Your task to perform on an android device: star an email in the gmail app Image 0: 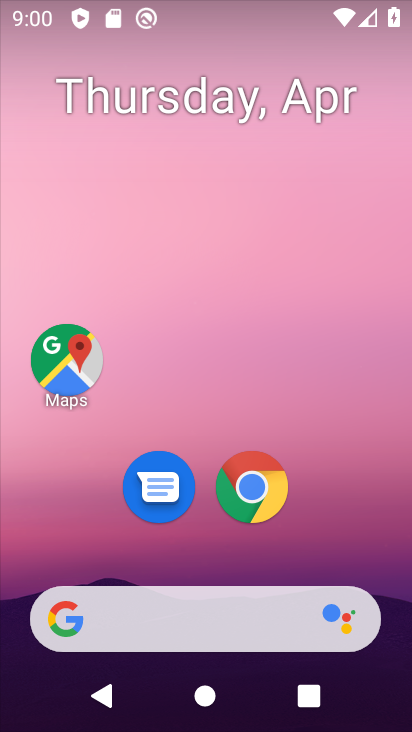
Step 0: drag from (347, 540) to (362, 200)
Your task to perform on an android device: star an email in the gmail app Image 1: 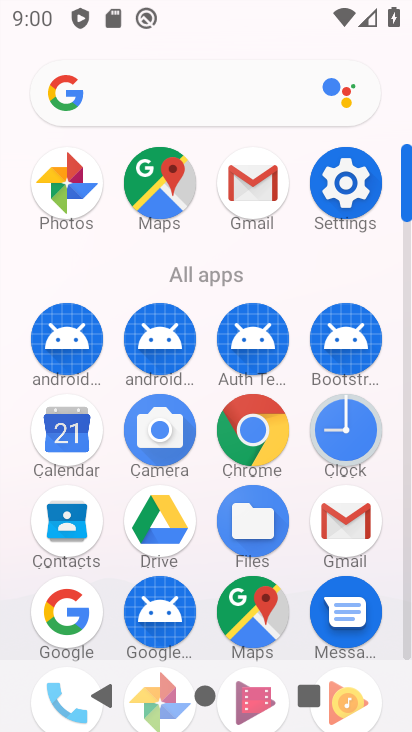
Step 1: click (355, 537)
Your task to perform on an android device: star an email in the gmail app Image 2: 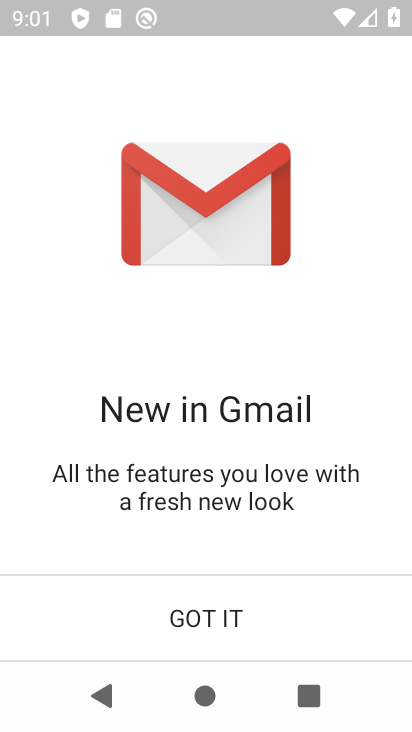
Step 2: click (208, 618)
Your task to perform on an android device: star an email in the gmail app Image 3: 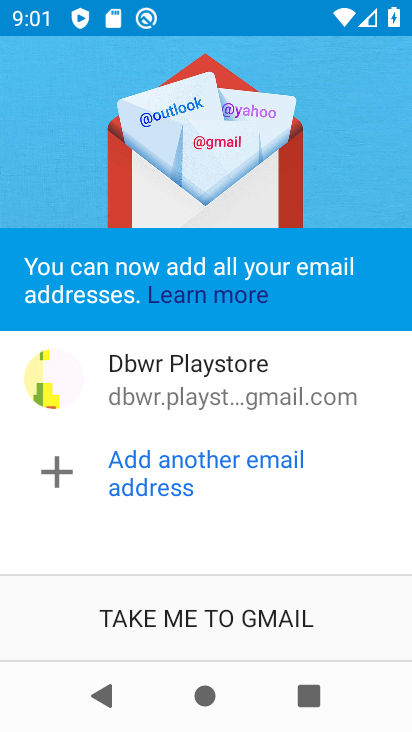
Step 3: click (249, 610)
Your task to perform on an android device: star an email in the gmail app Image 4: 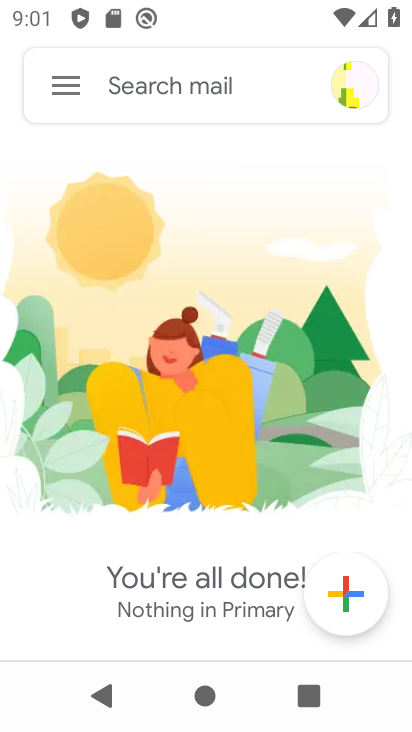
Step 4: click (70, 92)
Your task to perform on an android device: star an email in the gmail app Image 5: 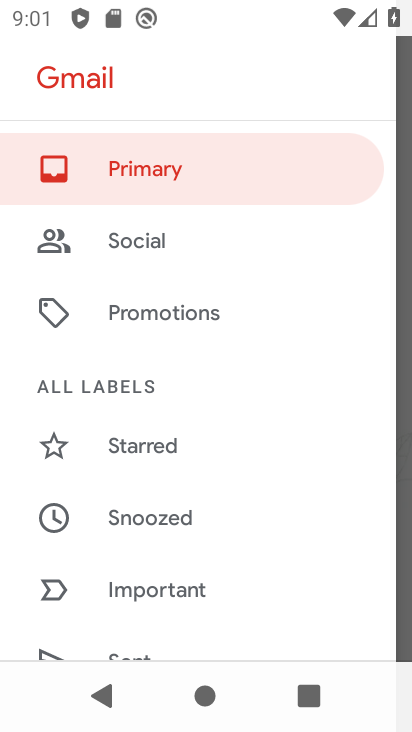
Step 5: drag from (246, 607) to (260, 229)
Your task to perform on an android device: star an email in the gmail app Image 6: 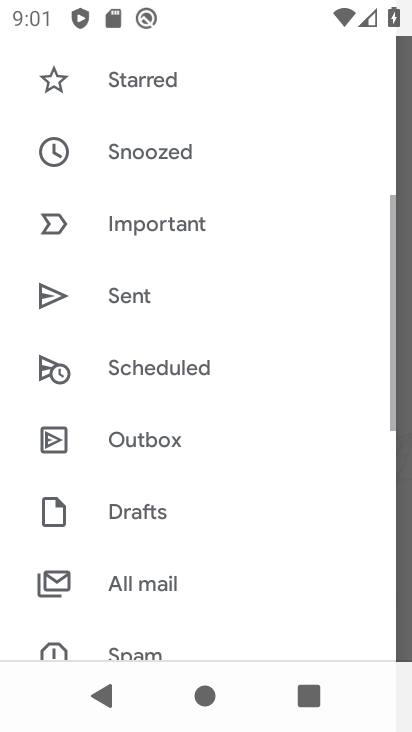
Step 6: drag from (273, 585) to (278, 252)
Your task to perform on an android device: star an email in the gmail app Image 7: 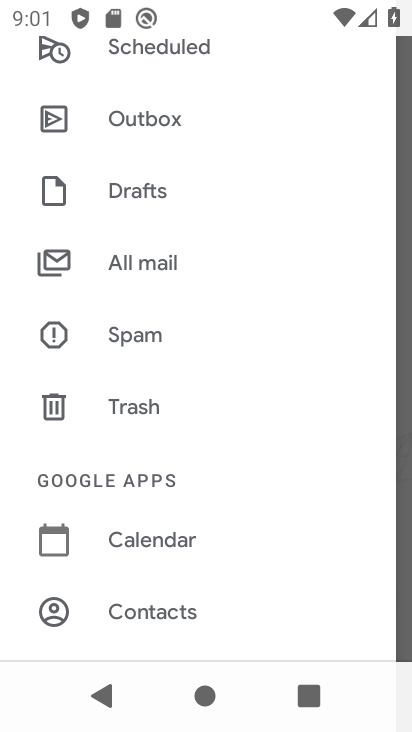
Step 7: click (150, 234)
Your task to perform on an android device: star an email in the gmail app Image 8: 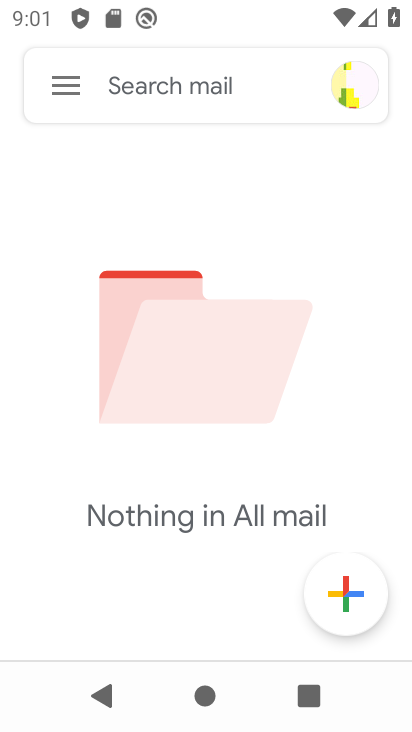
Step 8: click (55, 85)
Your task to perform on an android device: star an email in the gmail app Image 9: 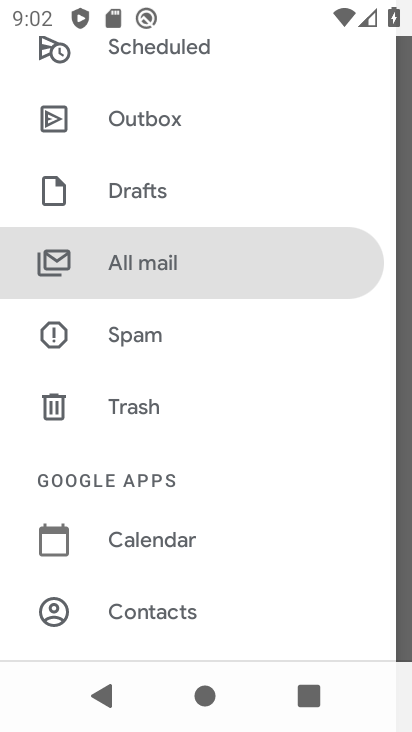
Step 9: task complete